Your task to perform on an android device: Open battery settings Image 0: 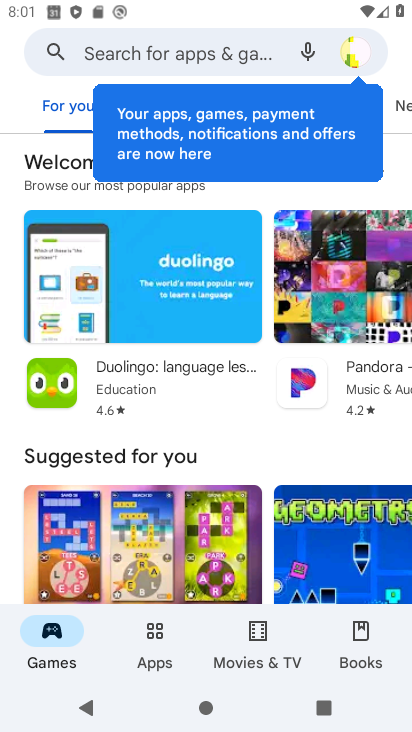
Step 0: press home button
Your task to perform on an android device: Open battery settings Image 1: 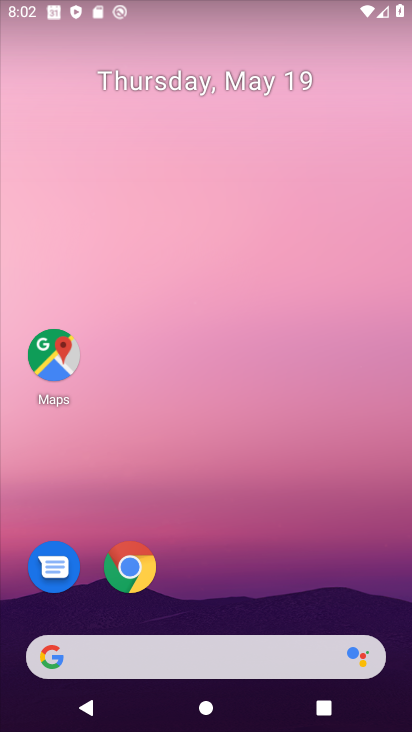
Step 1: drag from (223, 600) to (180, 32)
Your task to perform on an android device: Open battery settings Image 2: 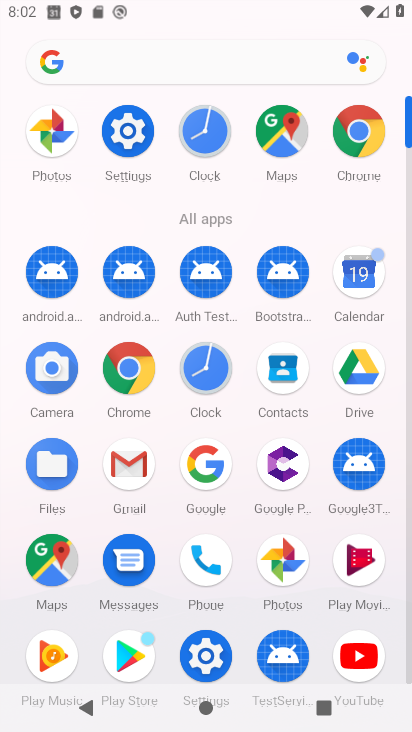
Step 2: click (138, 147)
Your task to perform on an android device: Open battery settings Image 3: 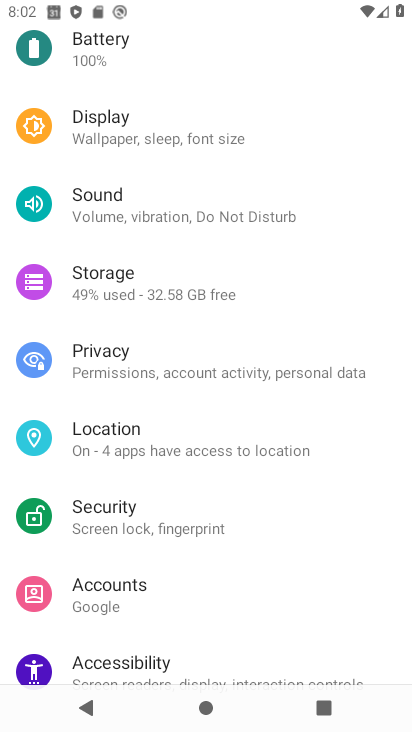
Step 3: click (130, 45)
Your task to perform on an android device: Open battery settings Image 4: 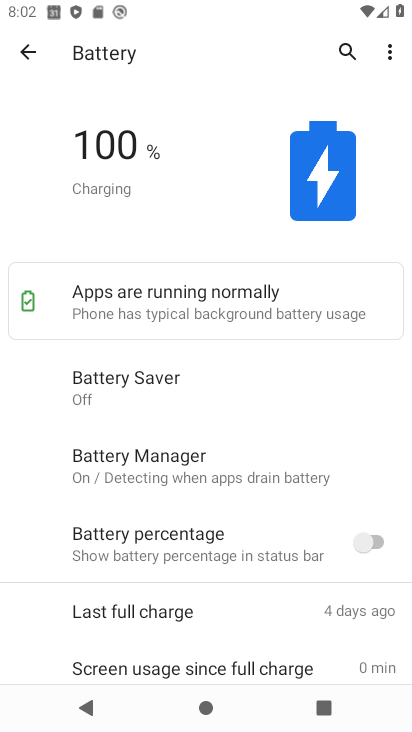
Step 4: task complete